Your task to perform on an android device: Search for seafood restaurants on Google Maps Image 0: 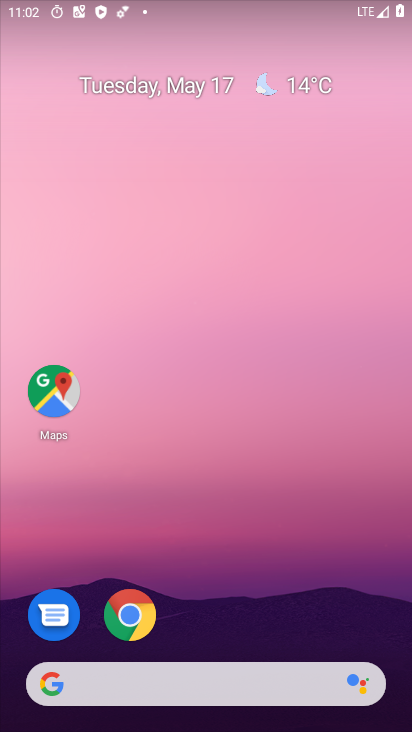
Step 0: press home button
Your task to perform on an android device: Search for seafood restaurants on Google Maps Image 1: 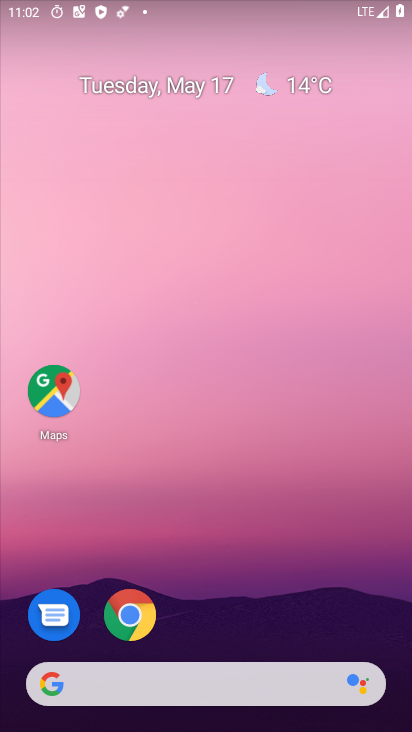
Step 1: click (53, 409)
Your task to perform on an android device: Search for seafood restaurants on Google Maps Image 2: 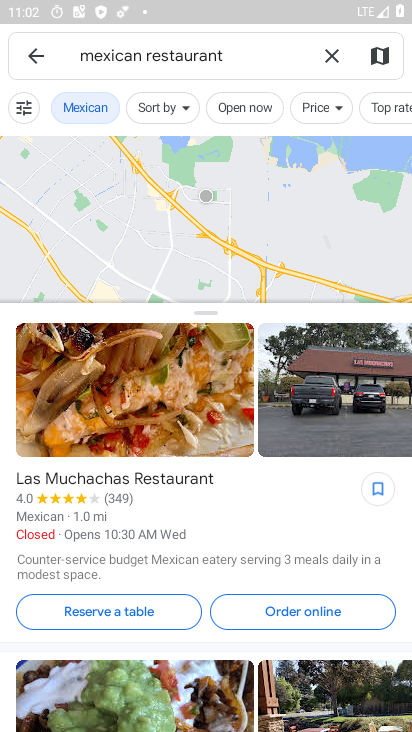
Step 2: click (335, 50)
Your task to perform on an android device: Search for seafood restaurants on Google Maps Image 3: 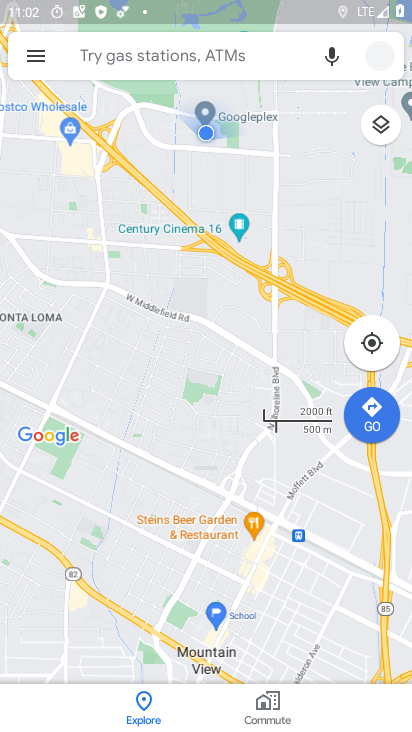
Step 3: click (229, 51)
Your task to perform on an android device: Search for seafood restaurants on Google Maps Image 4: 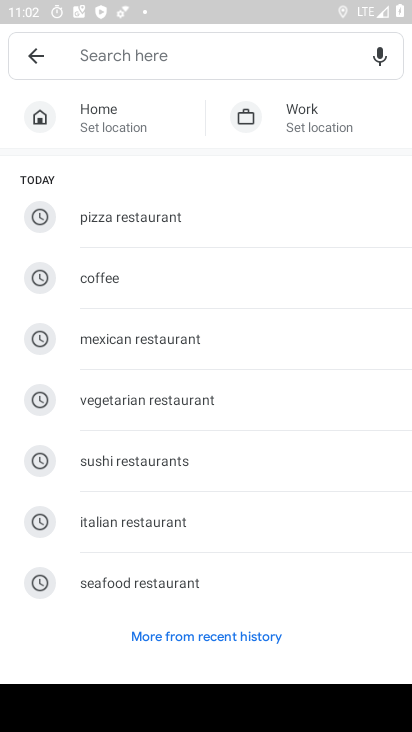
Step 4: click (178, 589)
Your task to perform on an android device: Search for seafood restaurants on Google Maps Image 5: 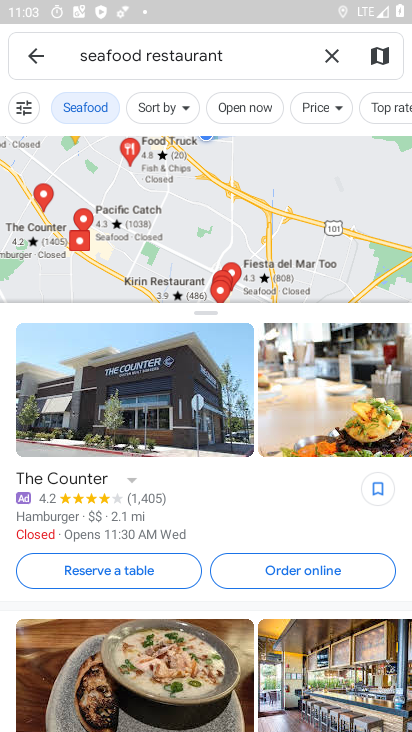
Step 5: task complete